Your task to perform on an android device: check the backup settings in the google photos Image 0: 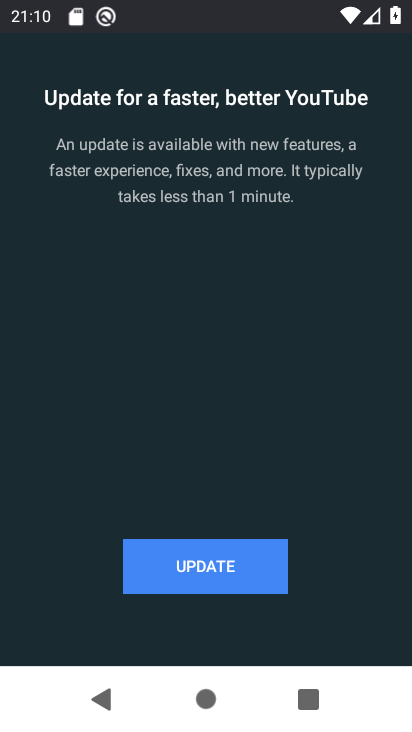
Step 0: press home button
Your task to perform on an android device: check the backup settings in the google photos Image 1: 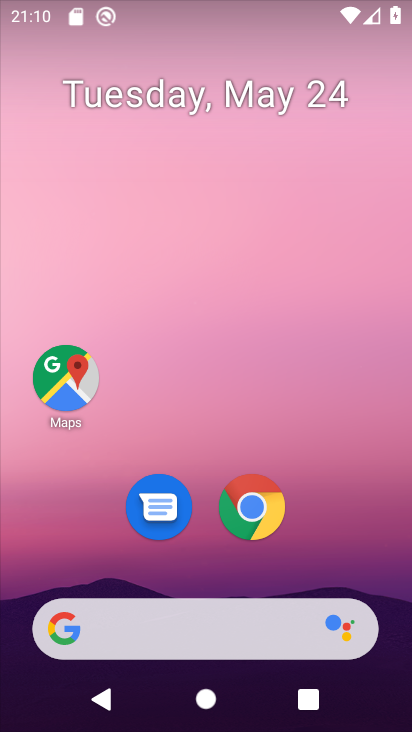
Step 1: drag from (200, 575) to (213, 15)
Your task to perform on an android device: check the backup settings in the google photos Image 2: 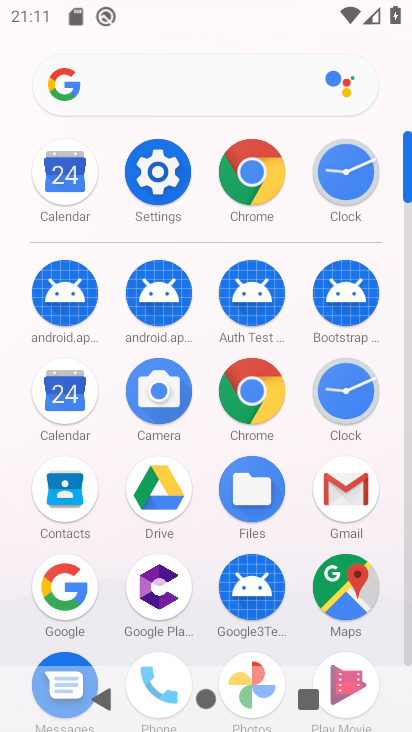
Step 2: click (257, 656)
Your task to perform on an android device: check the backup settings in the google photos Image 3: 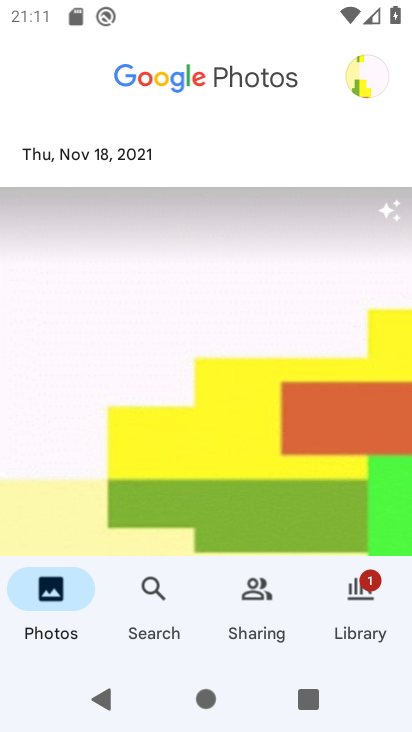
Step 3: drag from (217, 539) to (207, 71)
Your task to perform on an android device: check the backup settings in the google photos Image 4: 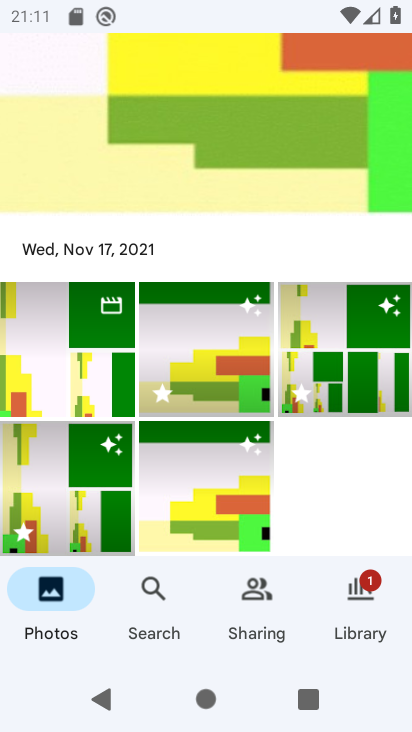
Step 4: drag from (297, 536) to (305, 292)
Your task to perform on an android device: check the backup settings in the google photos Image 5: 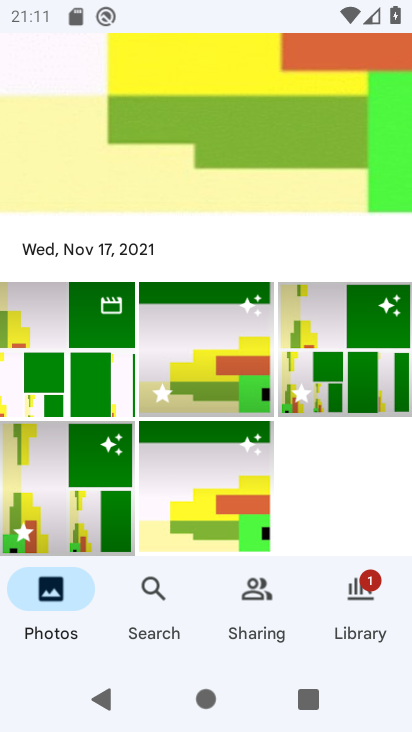
Step 5: drag from (343, 160) to (330, 712)
Your task to perform on an android device: check the backup settings in the google photos Image 6: 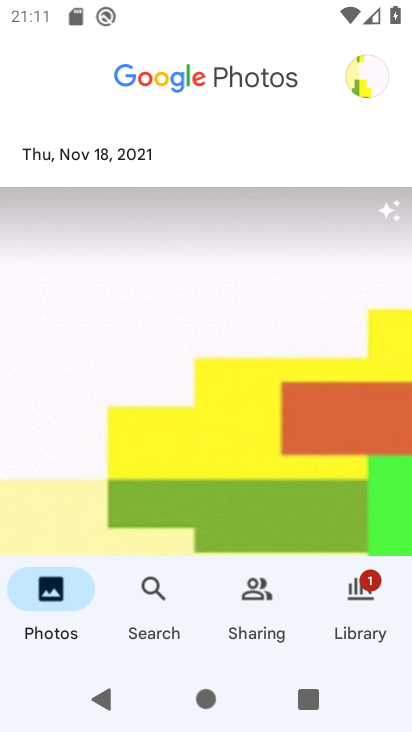
Step 6: click (367, 590)
Your task to perform on an android device: check the backup settings in the google photos Image 7: 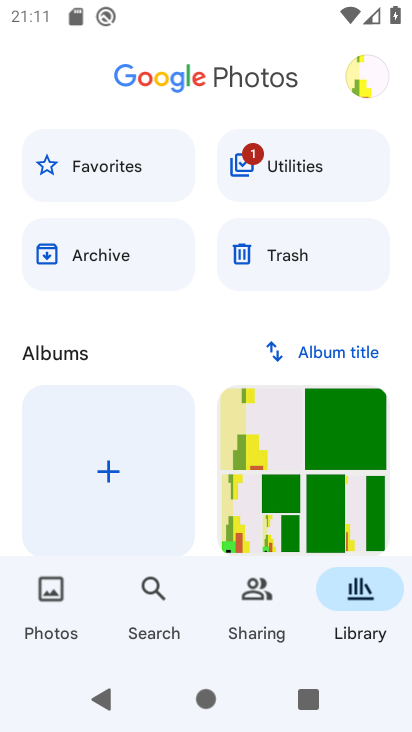
Step 7: click (370, 80)
Your task to perform on an android device: check the backup settings in the google photos Image 8: 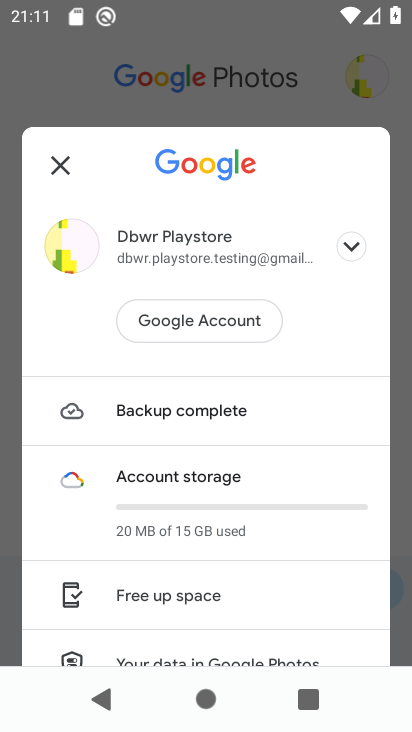
Step 8: drag from (174, 584) to (283, 130)
Your task to perform on an android device: check the backup settings in the google photos Image 9: 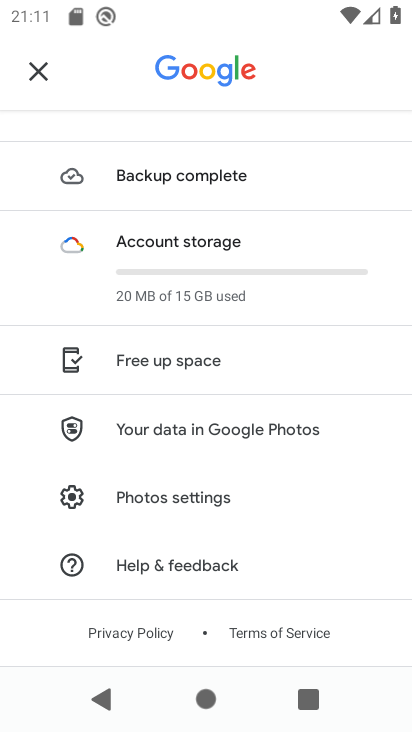
Step 9: click (156, 492)
Your task to perform on an android device: check the backup settings in the google photos Image 10: 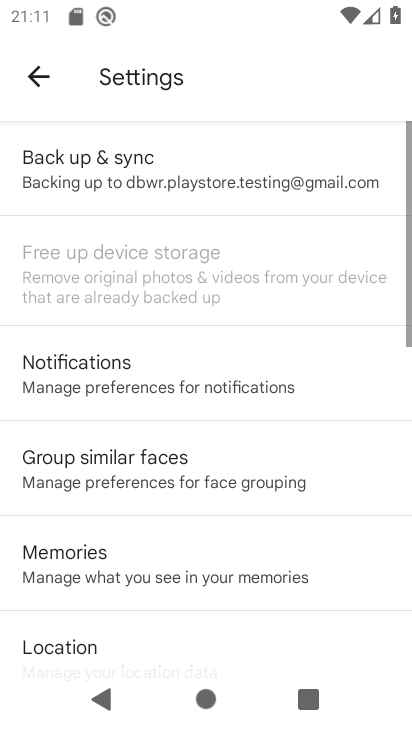
Step 10: click (168, 186)
Your task to perform on an android device: check the backup settings in the google photos Image 11: 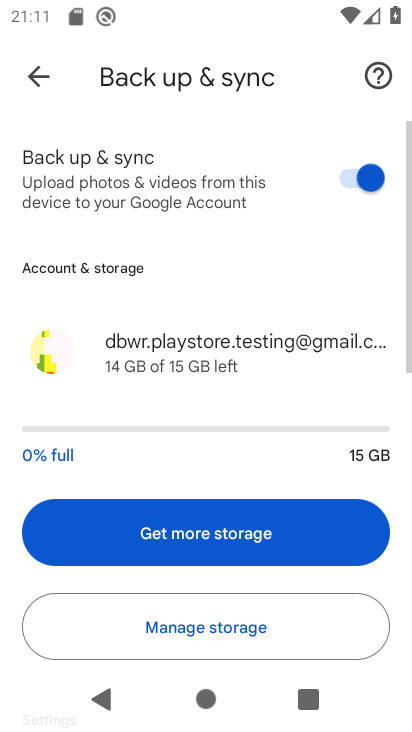
Step 11: drag from (187, 401) to (316, 10)
Your task to perform on an android device: check the backup settings in the google photos Image 12: 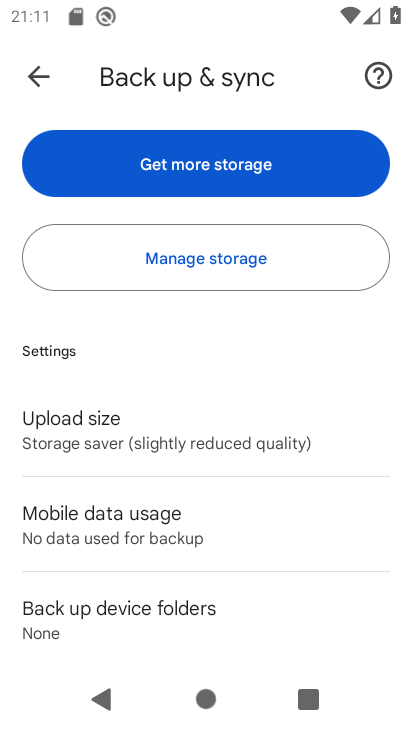
Step 12: click (146, 439)
Your task to perform on an android device: check the backup settings in the google photos Image 13: 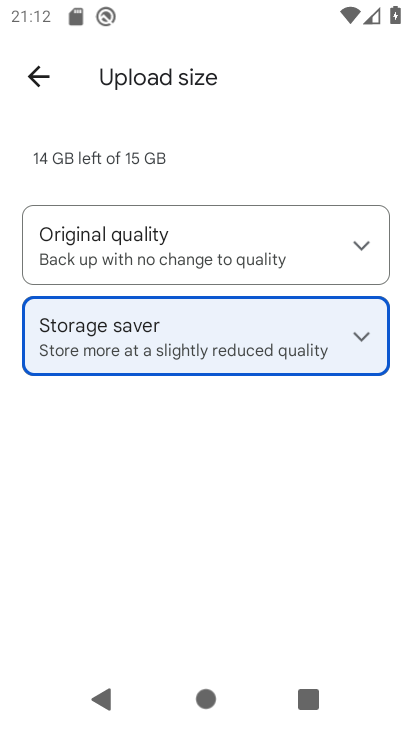
Step 13: click (282, 472)
Your task to perform on an android device: check the backup settings in the google photos Image 14: 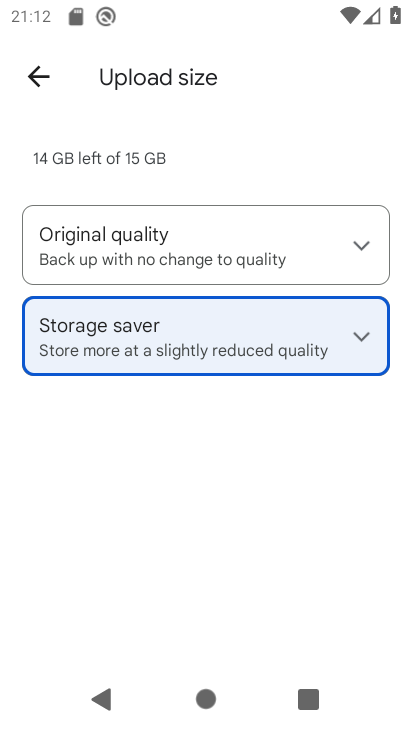
Step 14: click (155, 227)
Your task to perform on an android device: check the backup settings in the google photos Image 15: 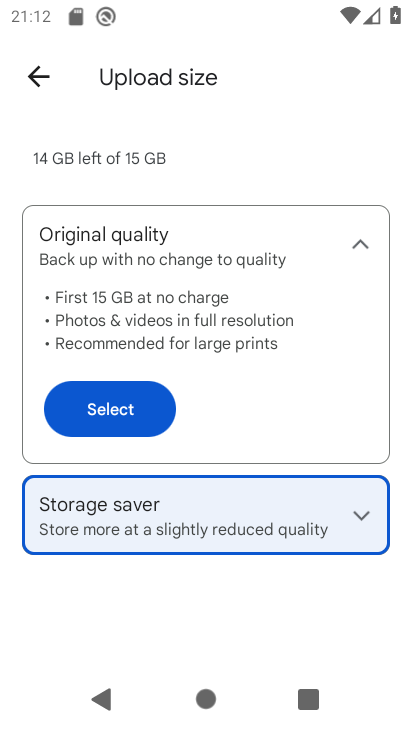
Step 15: click (39, 65)
Your task to perform on an android device: check the backup settings in the google photos Image 16: 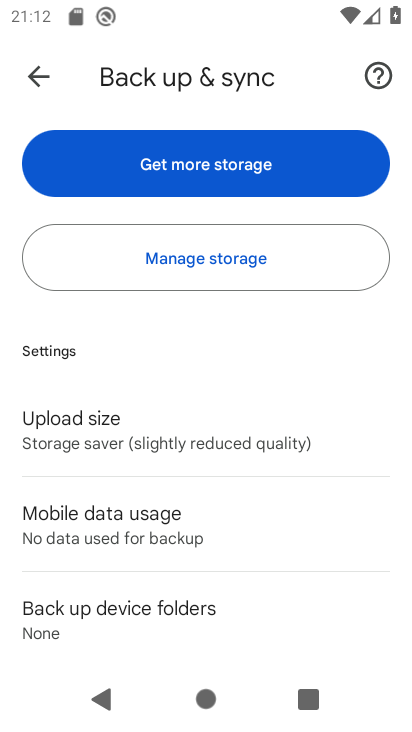
Step 16: task complete